Your task to perform on an android device: Go to ESPN.com Image 0: 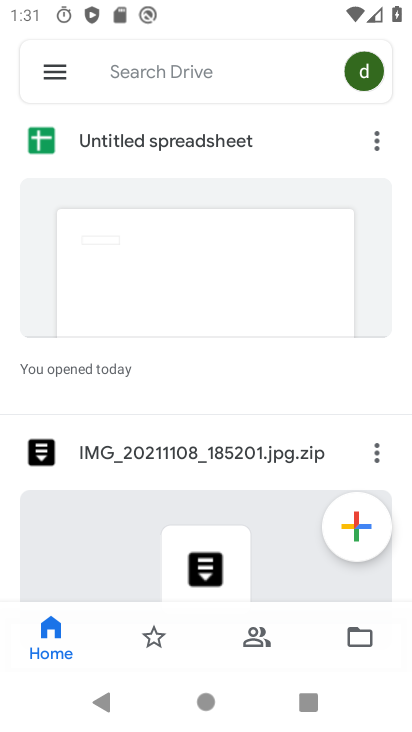
Step 0: press home button
Your task to perform on an android device: Go to ESPN.com Image 1: 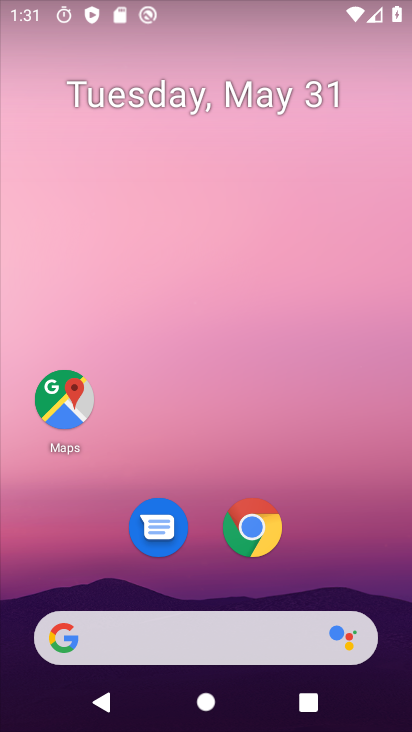
Step 1: click (250, 546)
Your task to perform on an android device: Go to ESPN.com Image 2: 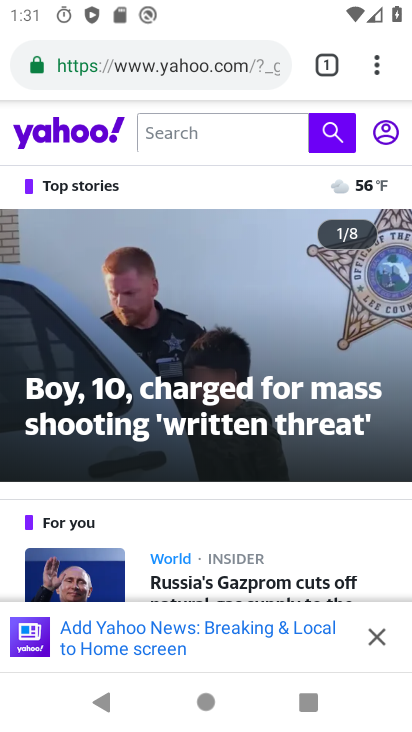
Step 2: click (323, 70)
Your task to perform on an android device: Go to ESPN.com Image 3: 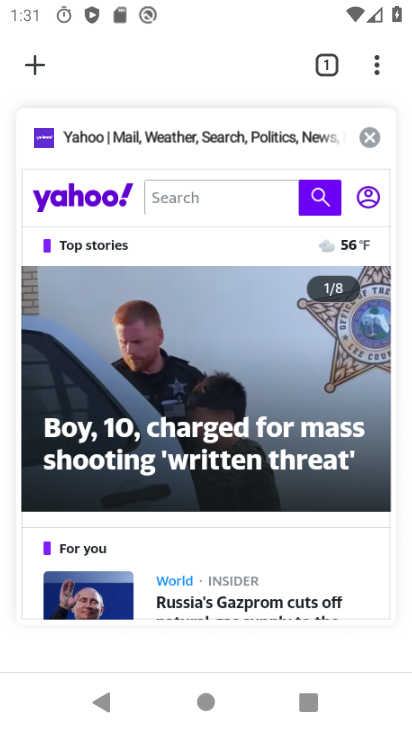
Step 3: click (363, 136)
Your task to perform on an android device: Go to ESPN.com Image 4: 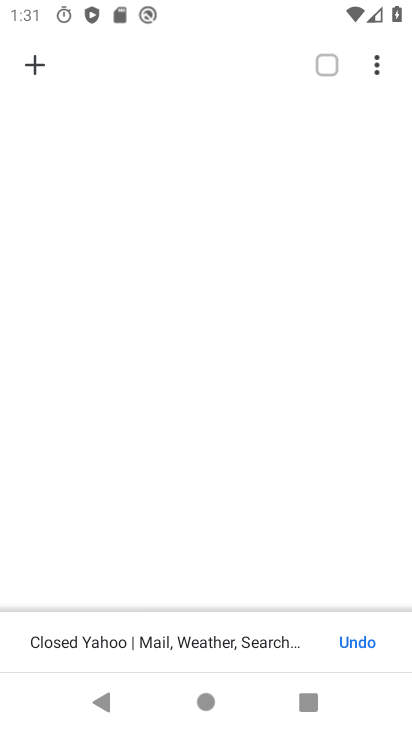
Step 4: click (37, 72)
Your task to perform on an android device: Go to ESPN.com Image 5: 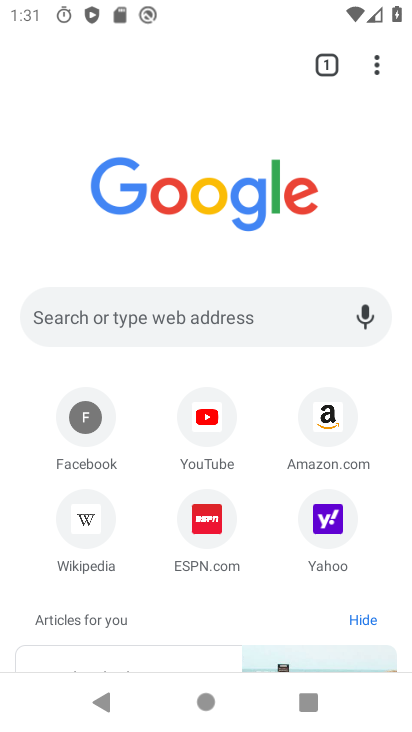
Step 5: click (202, 527)
Your task to perform on an android device: Go to ESPN.com Image 6: 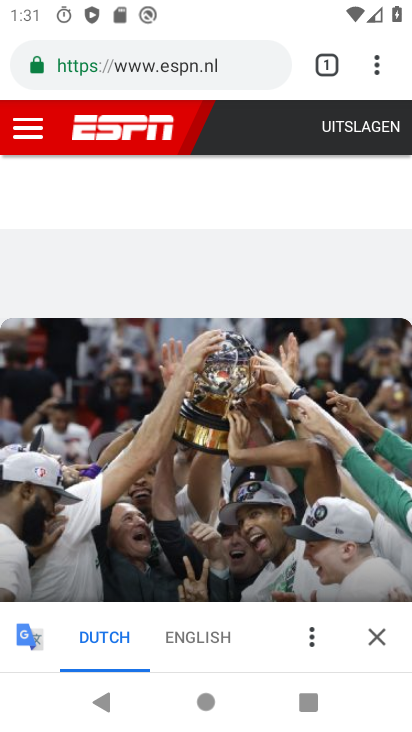
Step 6: task complete